Your task to perform on an android device: Find the nearest grocery store Image 0: 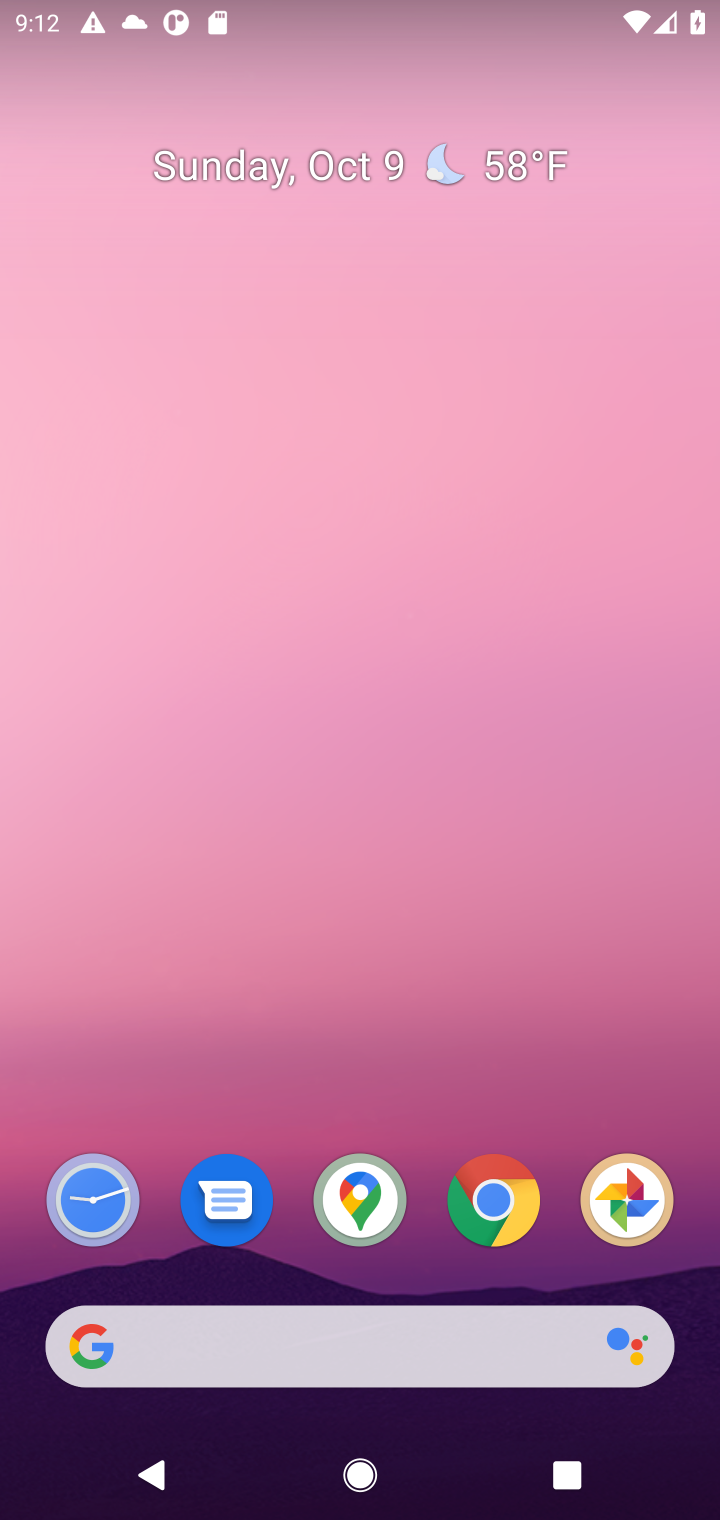
Step 0: click (502, 1191)
Your task to perform on an android device: Find the nearest grocery store Image 1: 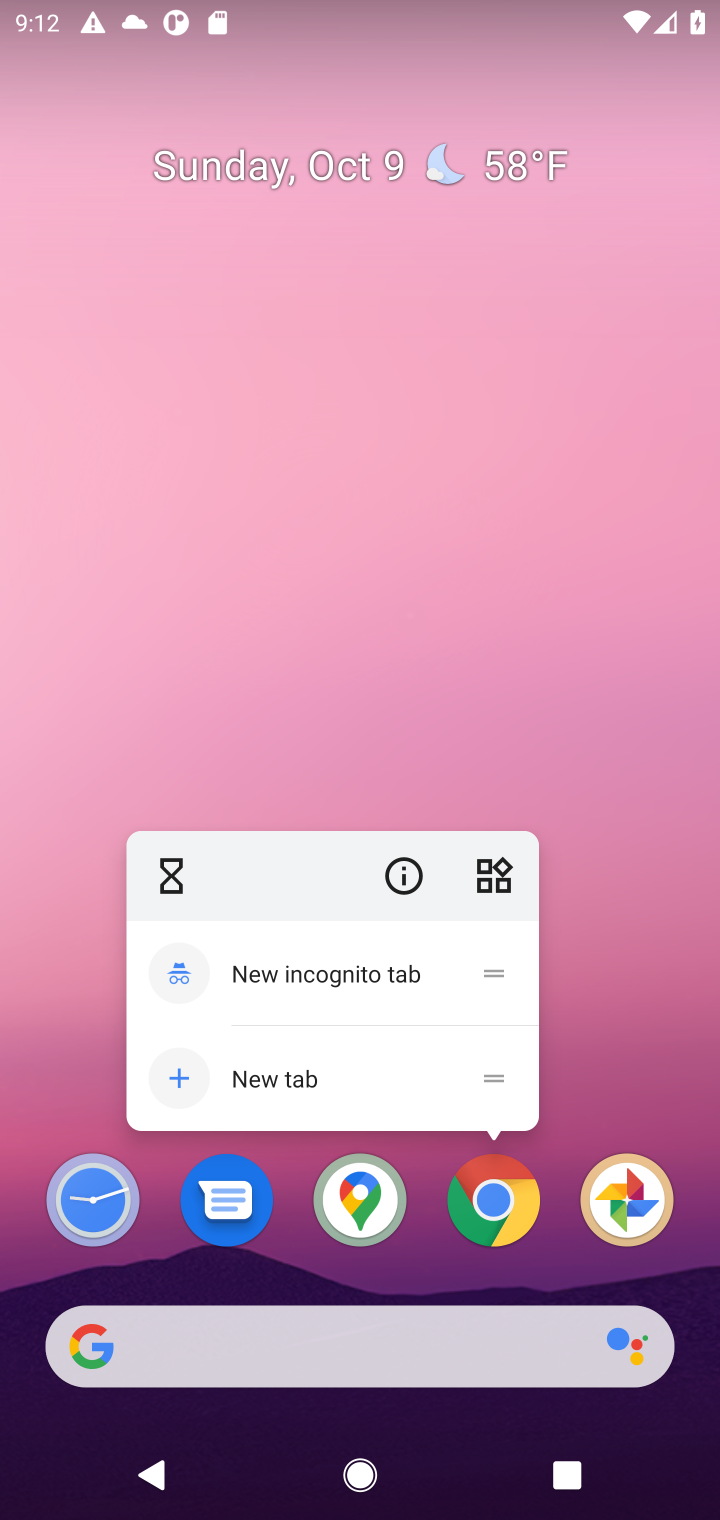
Step 1: click (502, 1191)
Your task to perform on an android device: Find the nearest grocery store Image 2: 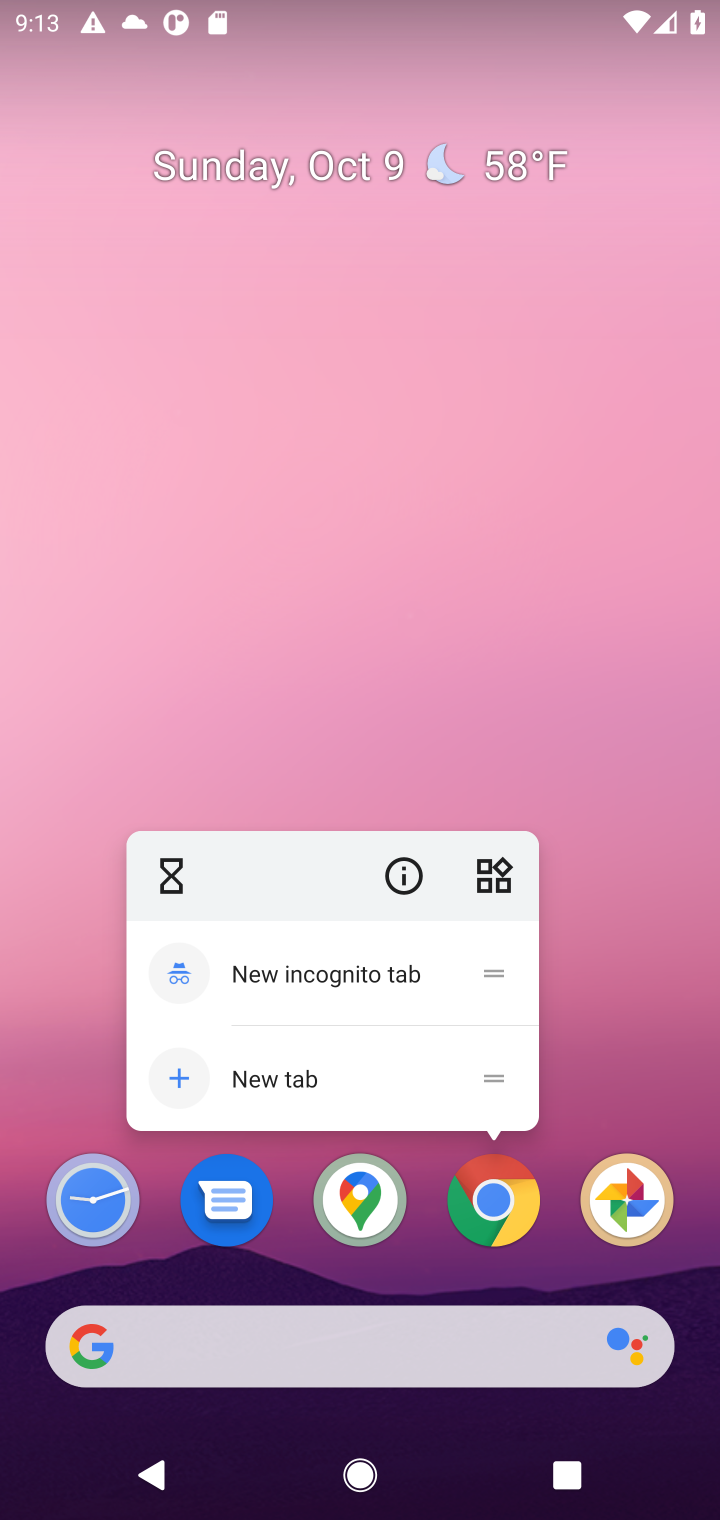
Step 2: click (502, 1191)
Your task to perform on an android device: Find the nearest grocery store Image 3: 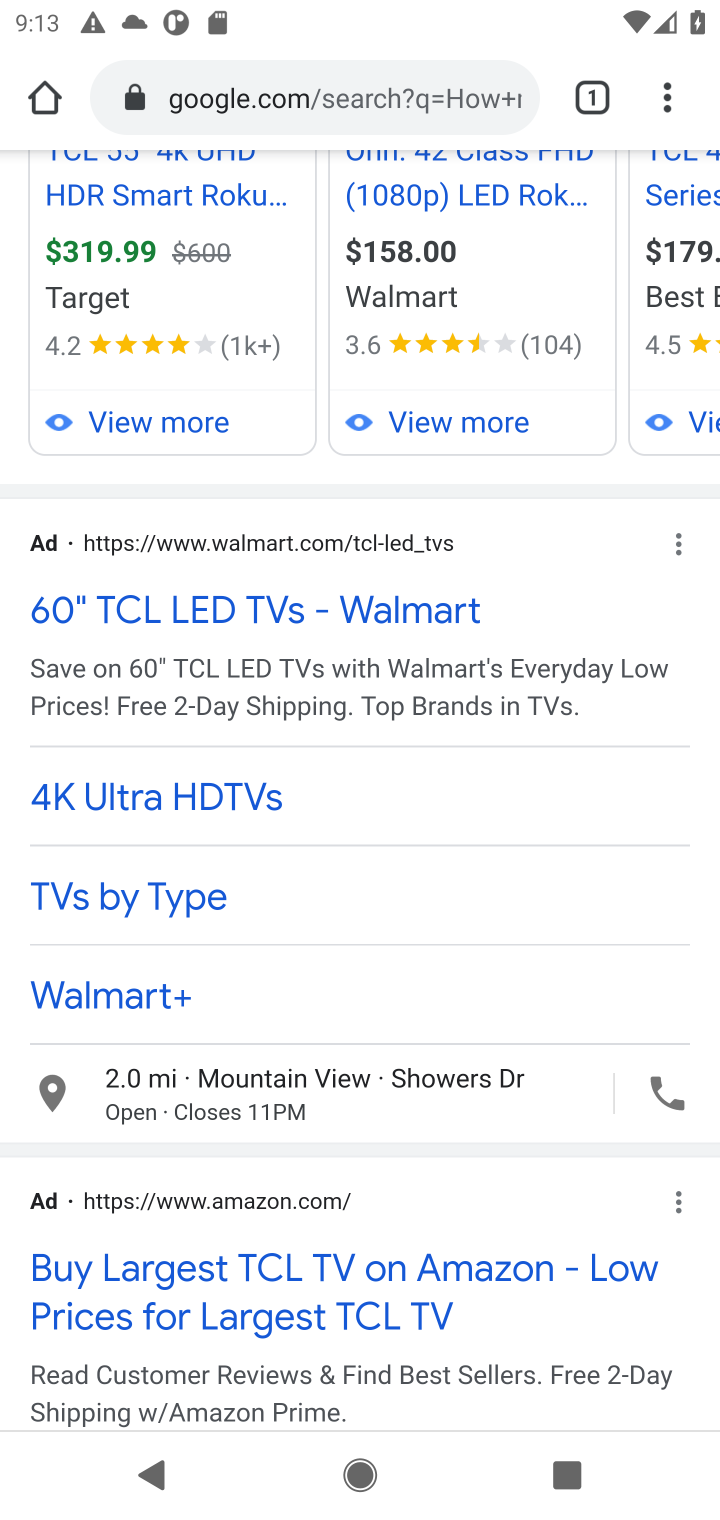
Step 3: drag from (393, 323) to (335, 1366)
Your task to perform on an android device: Find the nearest grocery store Image 4: 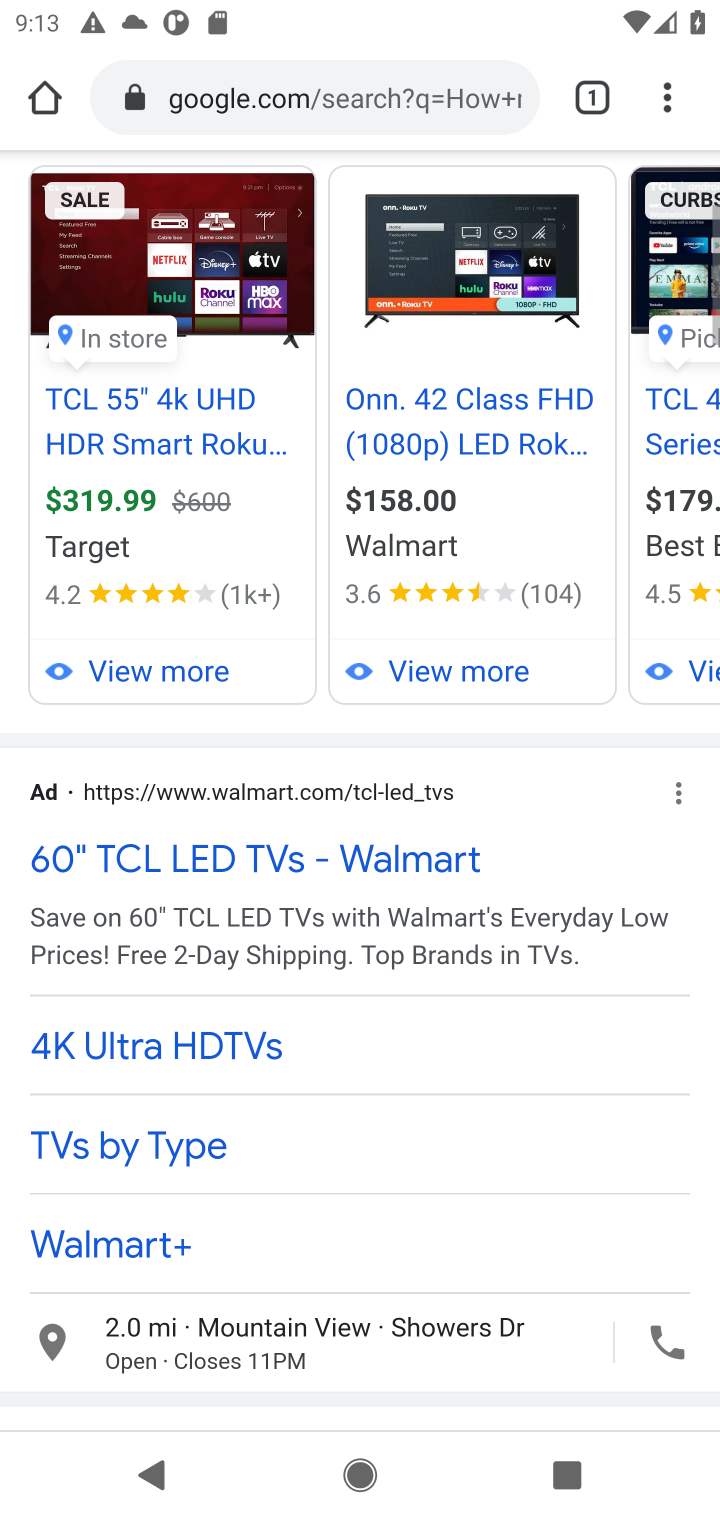
Step 4: click (311, 87)
Your task to perform on an android device: Find the nearest grocery store Image 5: 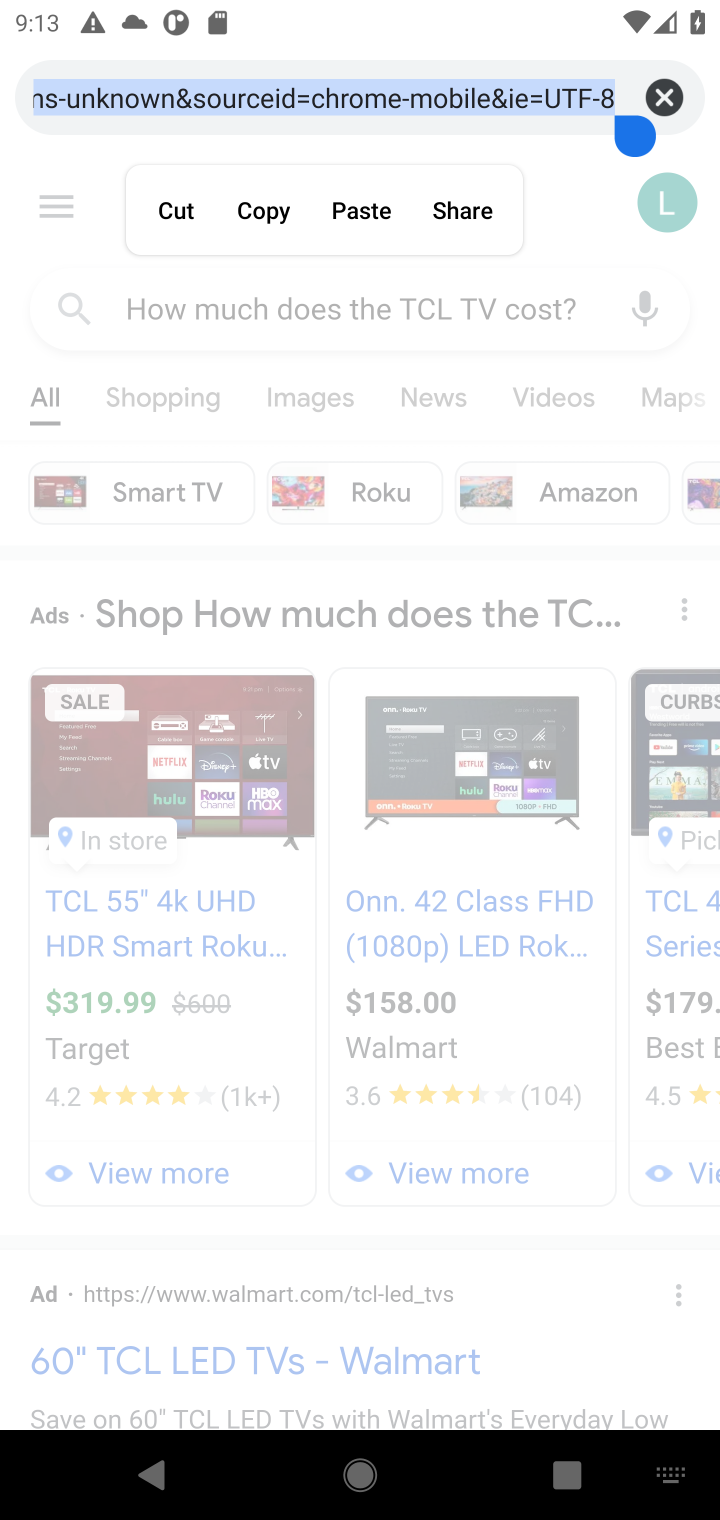
Step 5: click (667, 105)
Your task to perform on an android device: Find the nearest grocery store Image 6: 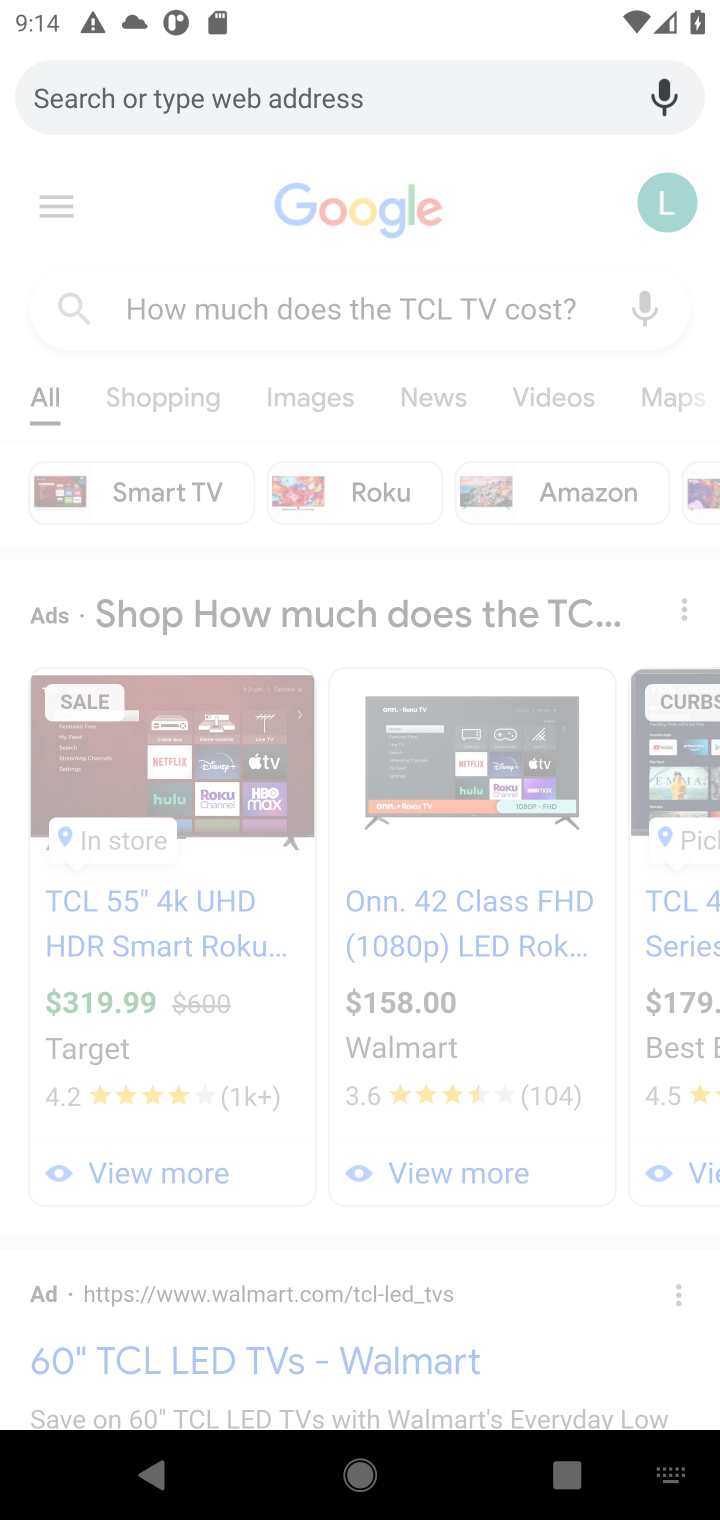
Step 6: type " nearest grocery store"
Your task to perform on an android device: Find the nearest grocery store Image 7: 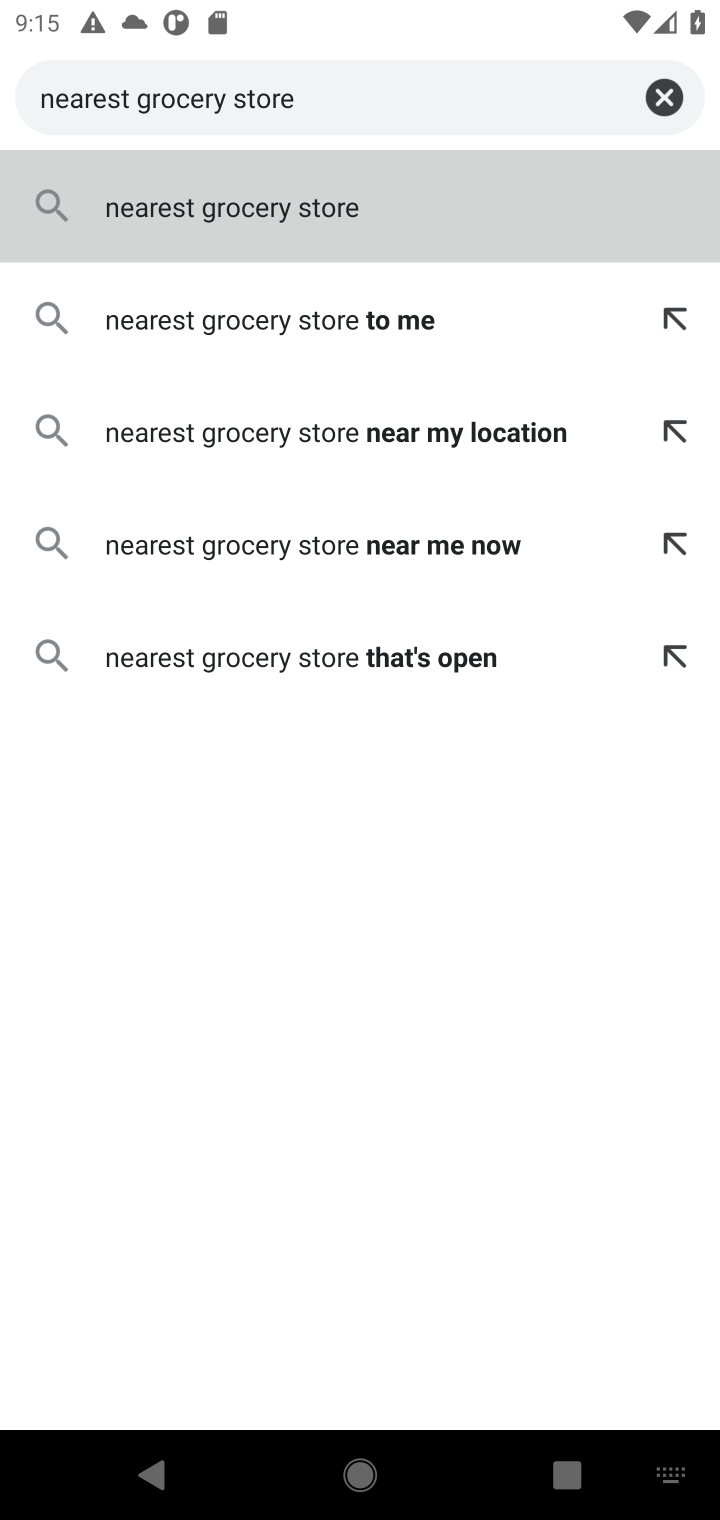
Step 7: click (275, 197)
Your task to perform on an android device: Find the nearest grocery store Image 8: 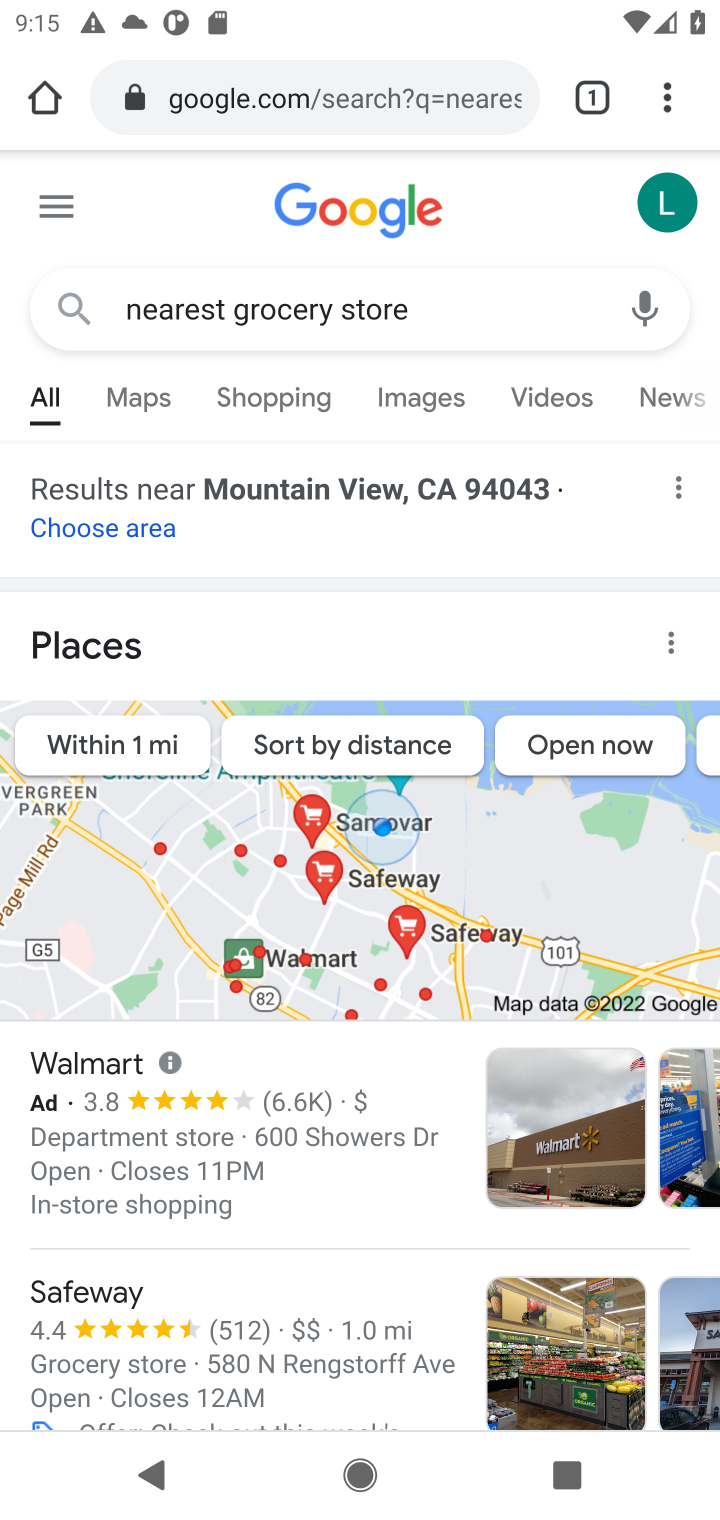
Step 8: task complete